Your task to perform on an android device: Clear all items from cart on bestbuy.com. Add logitech g pro to the cart on bestbuy.com, then select checkout. Image 0: 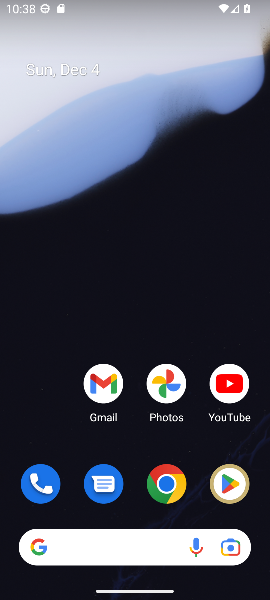
Step 0: click (163, 494)
Your task to perform on an android device: Clear all items from cart on bestbuy.com. Add logitech g pro to the cart on bestbuy.com, then select checkout. Image 1: 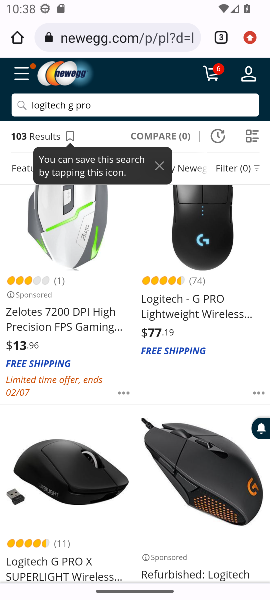
Step 1: click (113, 35)
Your task to perform on an android device: Clear all items from cart on bestbuy.com. Add logitech g pro to the cart on bestbuy.com, then select checkout. Image 2: 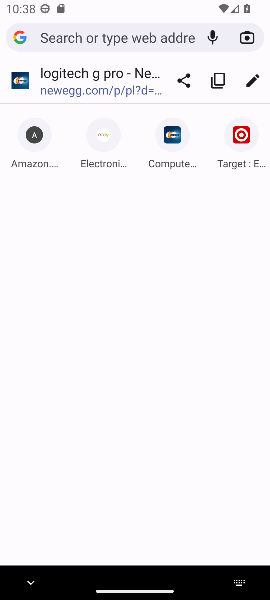
Step 2: type "bestbuy.com"
Your task to perform on an android device: Clear all items from cart on bestbuy.com. Add logitech g pro to the cart on bestbuy.com, then select checkout. Image 3: 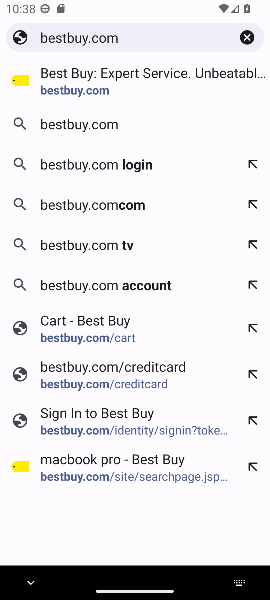
Step 3: click (48, 98)
Your task to perform on an android device: Clear all items from cart on bestbuy.com. Add logitech g pro to the cart on bestbuy.com, then select checkout. Image 4: 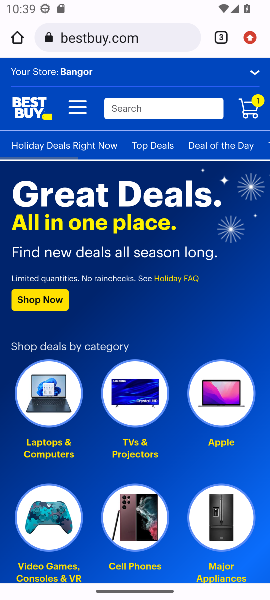
Step 4: click (248, 110)
Your task to perform on an android device: Clear all items from cart on bestbuy.com. Add logitech g pro to the cart on bestbuy.com, then select checkout. Image 5: 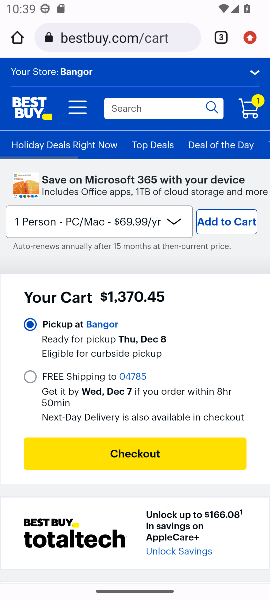
Step 5: drag from (180, 344) to (187, 123)
Your task to perform on an android device: Clear all items from cart on bestbuy.com. Add logitech g pro to the cart on bestbuy.com, then select checkout. Image 6: 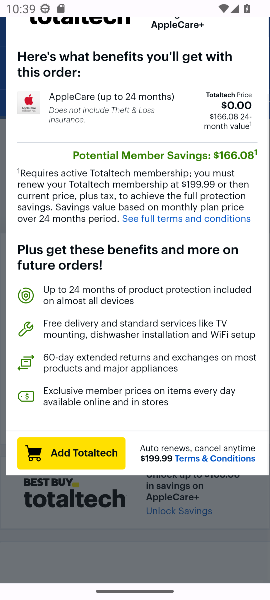
Step 6: click (242, 499)
Your task to perform on an android device: Clear all items from cart on bestbuy.com. Add logitech g pro to the cart on bestbuy.com, then select checkout. Image 7: 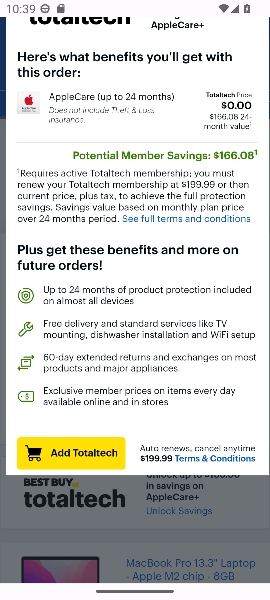
Step 7: drag from (202, 171) to (200, 359)
Your task to perform on an android device: Clear all items from cart on bestbuy.com. Add logitech g pro to the cart on bestbuy.com, then select checkout. Image 8: 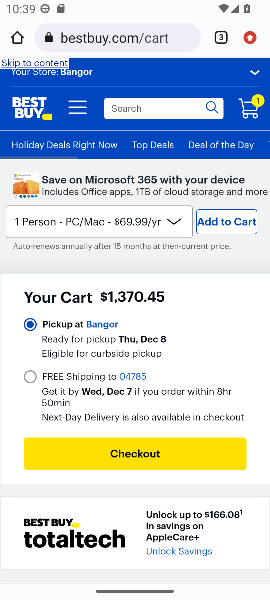
Step 8: drag from (207, 322) to (201, 146)
Your task to perform on an android device: Clear all items from cart on bestbuy.com. Add logitech g pro to the cart on bestbuy.com, then select checkout. Image 9: 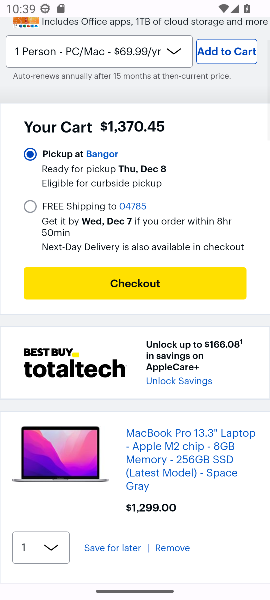
Step 9: drag from (151, 301) to (160, 110)
Your task to perform on an android device: Clear all items from cart on bestbuy.com. Add logitech g pro to the cart on bestbuy.com, then select checkout. Image 10: 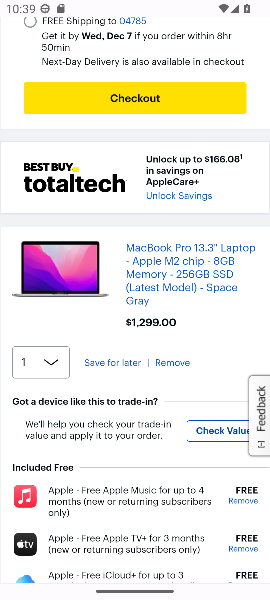
Step 10: click (174, 367)
Your task to perform on an android device: Clear all items from cart on bestbuy.com. Add logitech g pro to the cart on bestbuy.com, then select checkout. Image 11: 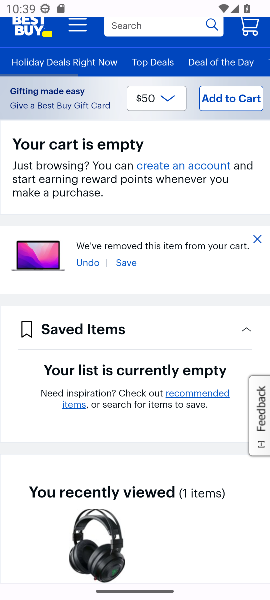
Step 11: drag from (156, 201) to (144, 358)
Your task to perform on an android device: Clear all items from cart on bestbuy.com. Add logitech g pro to the cart on bestbuy.com, then select checkout. Image 12: 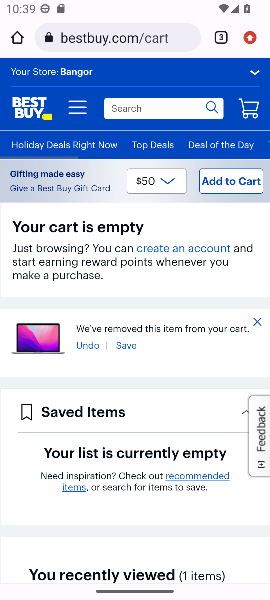
Step 12: click (130, 113)
Your task to perform on an android device: Clear all items from cart on bestbuy.com. Add logitech g pro to the cart on bestbuy.com, then select checkout. Image 13: 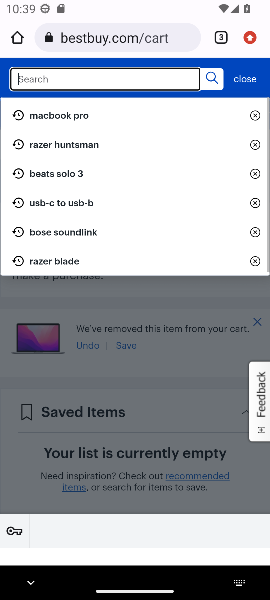
Step 13: type " logitech g pro"
Your task to perform on an android device: Clear all items from cart on bestbuy.com. Add logitech g pro to the cart on bestbuy.com, then select checkout. Image 14: 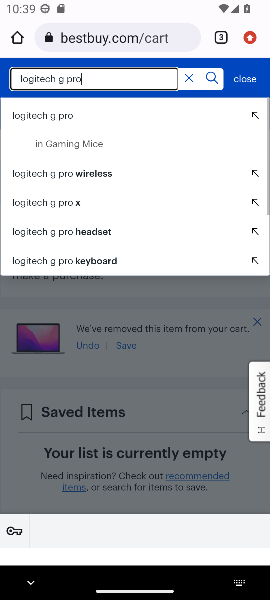
Step 14: click (47, 122)
Your task to perform on an android device: Clear all items from cart on bestbuy.com. Add logitech g pro to the cart on bestbuy.com, then select checkout. Image 15: 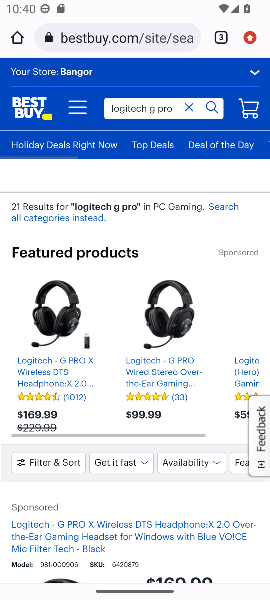
Step 15: drag from (124, 488) to (113, 224)
Your task to perform on an android device: Clear all items from cart on bestbuy.com. Add logitech g pro to the cart on bestbuy.com, then select checkout. Image 16: 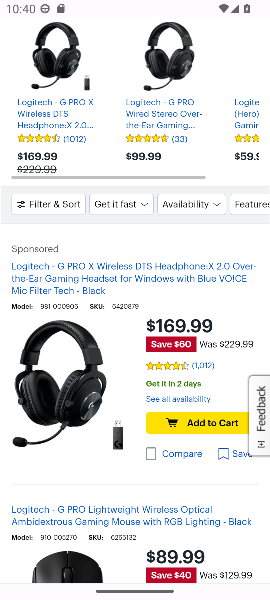
Step 16: click (208, 415)
Your task to perform on an android device: Clear all items from cart on bestbuy.com. Add logitech g pro to the cart on bestbuy.com, then select checkout. Image 17: 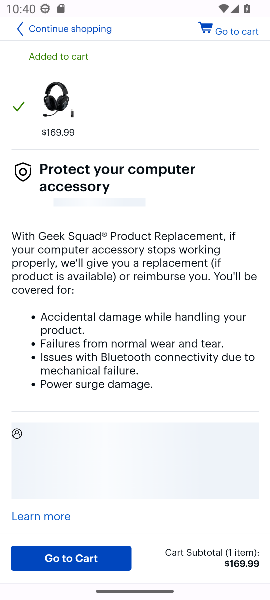
Step 17: click (230, 30)
Your task to perform on an android device: Clear all items from cart on bestbuy.com. Add logitech g pro to the cart on bestbuy.com, then select checkout. Image 18: 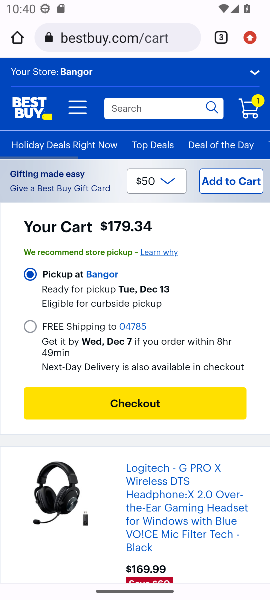
Step 18: click (123, 397)
Your task to perform on an android device: Clear all items from cart on bestbuy.com. Add logitech g pro to the cart on bestbuy.com, then select checkout. Image 19: 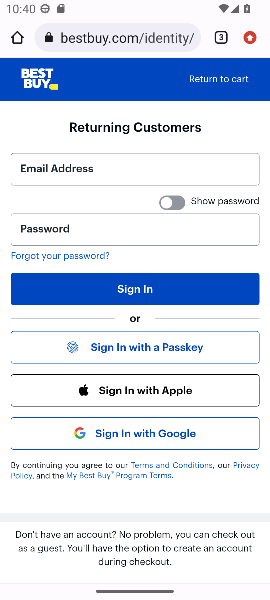
Step 19: task complete